Your task to perform on an android device: turn on airplane mode Image 0: 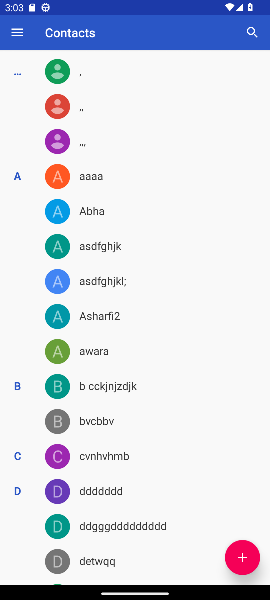
Step 0: press home button
Your task to perform on an android device: turn on airplane mode Image 1: 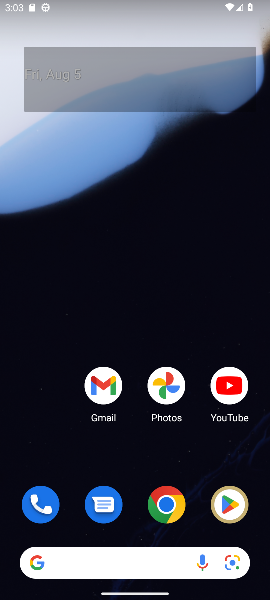
Step 1: drag from (26, 542) to (137, 93)
Your task to perform on an android device: turn on airplane mode Image 2: 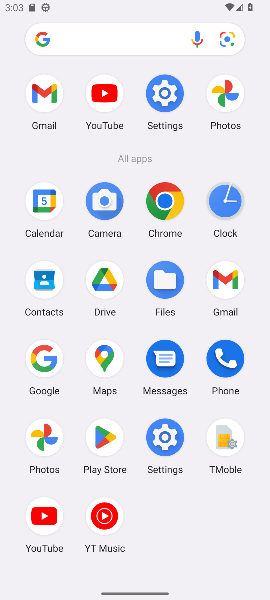
Step 2: click (172, 457)
Your task to perform on an android device: turn on airplane mode Image 3: 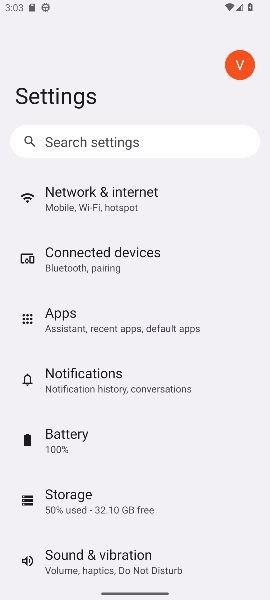
Step 3: click (114, 192)
Your task to perform on an android device: turn on airplane mode Image 4: 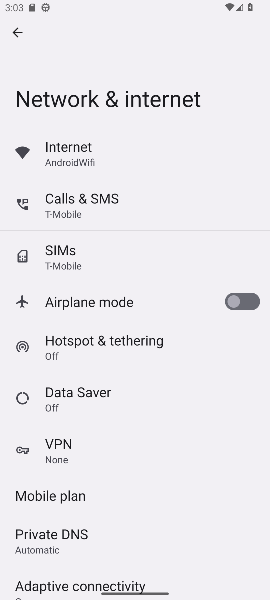
Step 4: click (243, 302)
Your task to perform on an android device: turn on airplane mode Image 5: 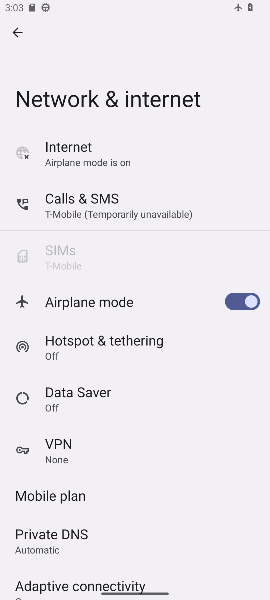
Step 5: task complete